Your task to perform on an android device: Empty the shopping cart on costco. Image 0: 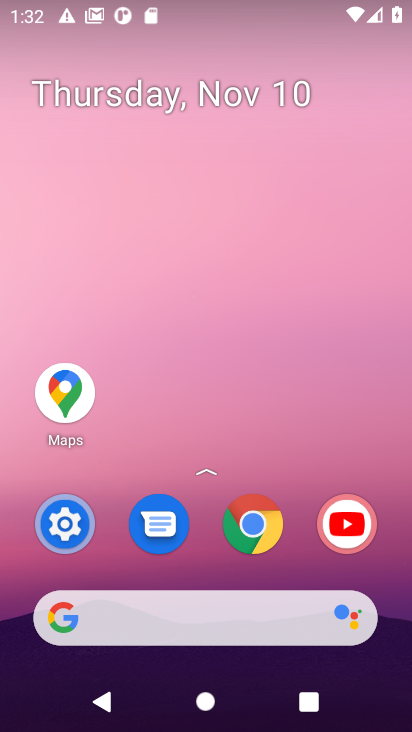
Step 0: click (242, 529)
Your task to perform on an android device: Empty the shopping cart on costco. Image 1: 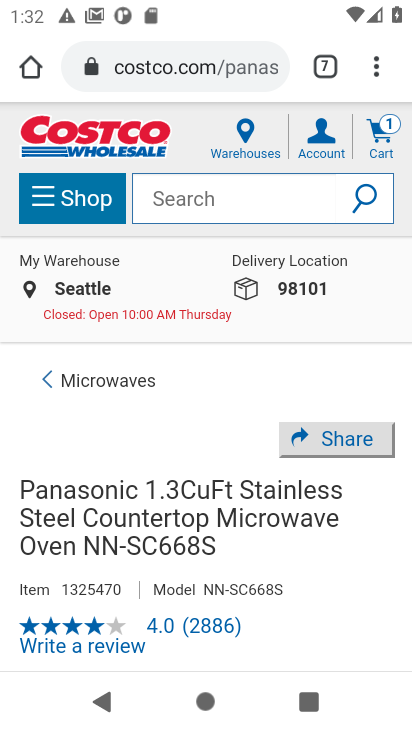
Step 1: click (384, 134)
Your task to perform on an android device: Empty the shopping cart on costco. Image 2: 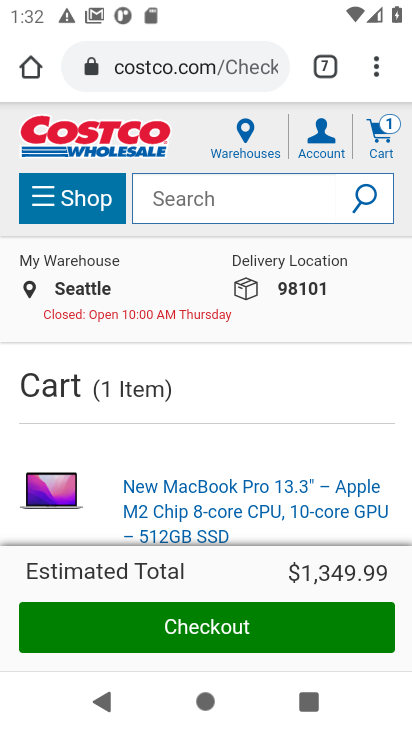
Step 2: drag from (295, 432) to (285, 132)
Your task to perform on an android device: Empty the shopping cart on costco. Image 3: 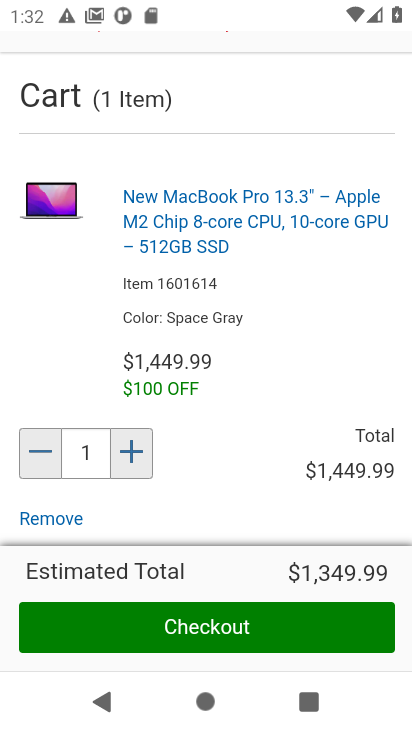
Step 3: drag from (222, 471) to (300, 178)
Your task to perform on an android device: Empty the shopping cart on costco. Image 4: 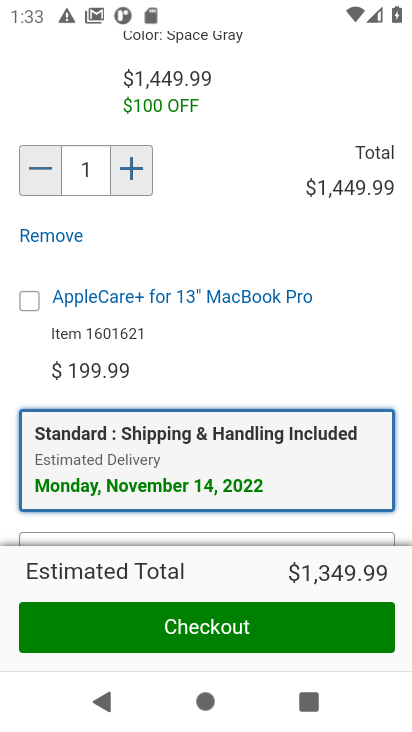
Step 4: click (63, 233)
Your task to perform on an android device: Empty the shopping cart on costco. Image 5: 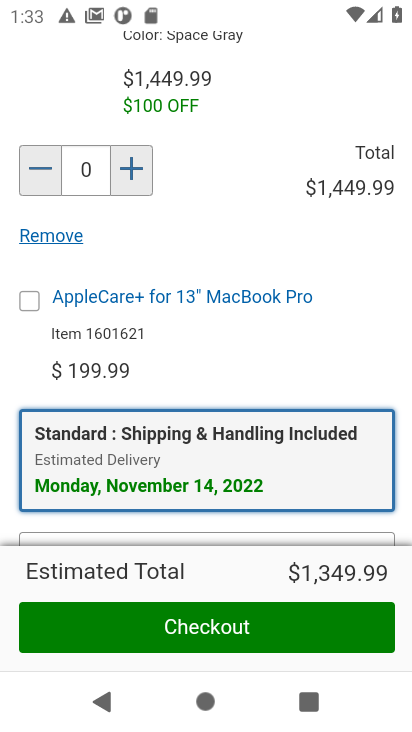
Step 5: drag from (209, 347) to (233, 73)
Your task to perform on an android device: Empty the shopping cart on costco. Image 6: 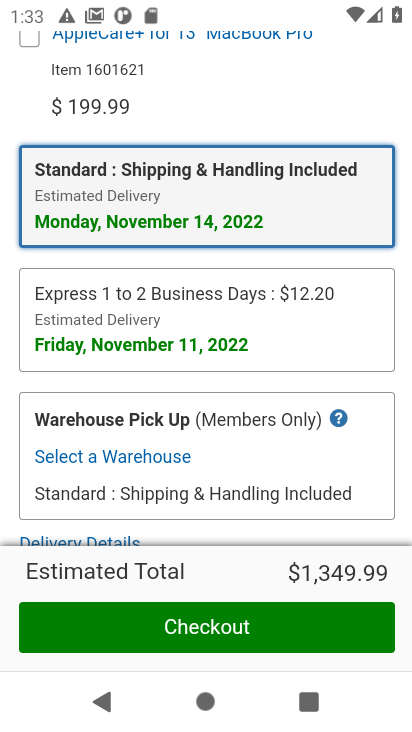
Step 6: drag from (304, 512) to (357, 66)
Your task to perform on an android device: Empty the shopping cart on costco. Image 7: 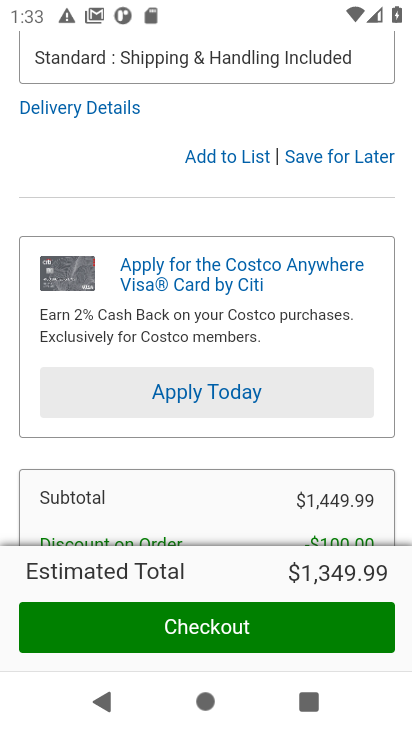
Step 7: click (309, 152)
Your task to perform on an android device: Empty the shopping cart on costco. Image 8: 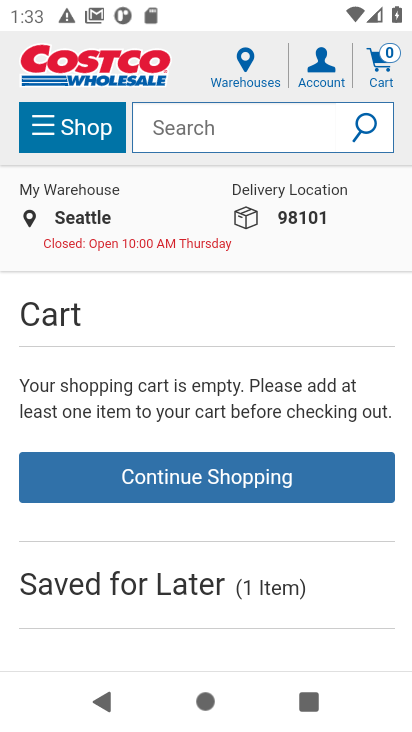
Step 8: task complete